Your task to perform on an android device: change alarm snooze length Image 0: 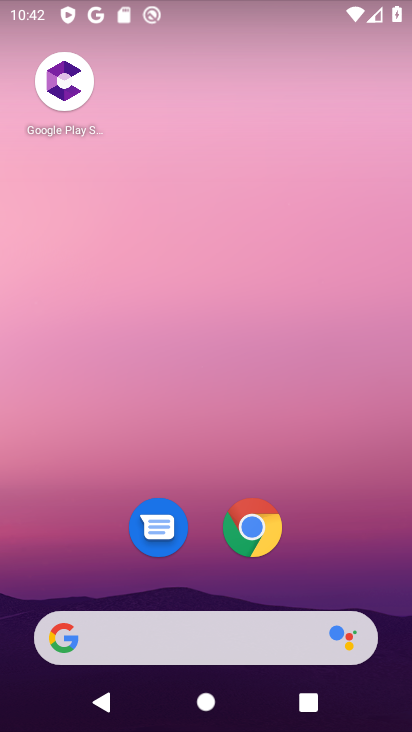
Step 0: drag from (200, 522) to (290, 25)
Your task to perform on an android device: change alarm snooze length Image 1: 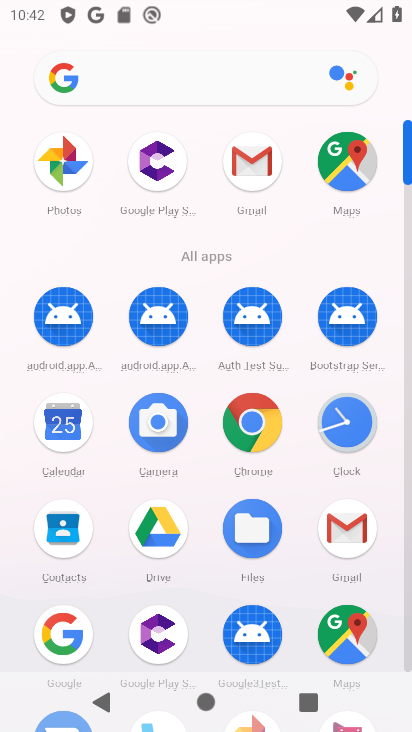
Step 1: click (367, 418)
Your task to perform on an android device: change alarm snooze length Image 2: 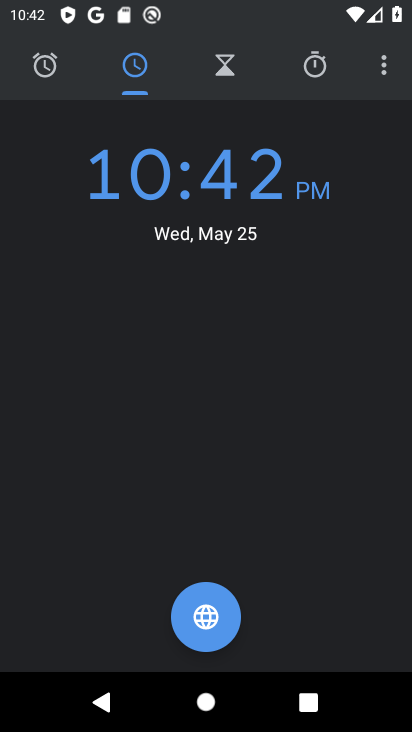
Step 2: click (382, 72)
Your task to perform on an android device: change alarm snooze length Image 3: 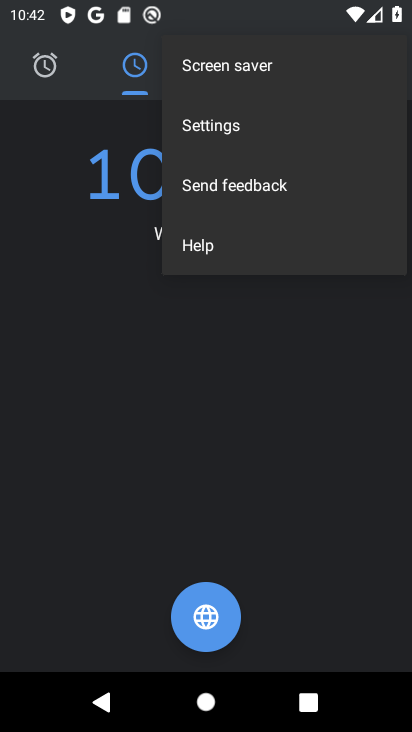
Step 3: click (222, 113)
Your task to perform on an android device: change alarm snooze length Image 4: 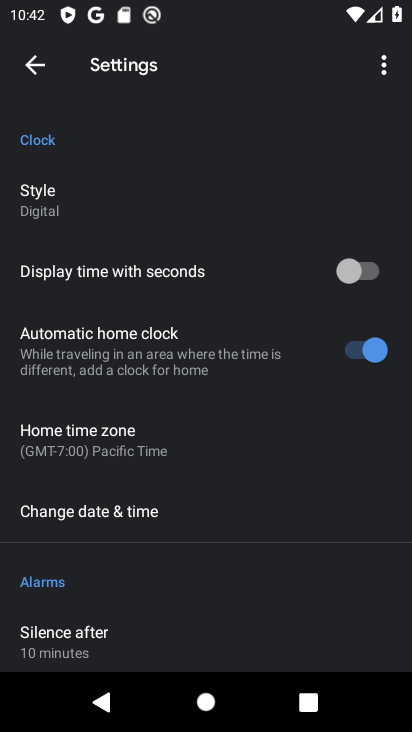
Step 4: drag from (190, 602) to (294, 140)
Your task to perform on an android device: change alarm snooze length Image 5: 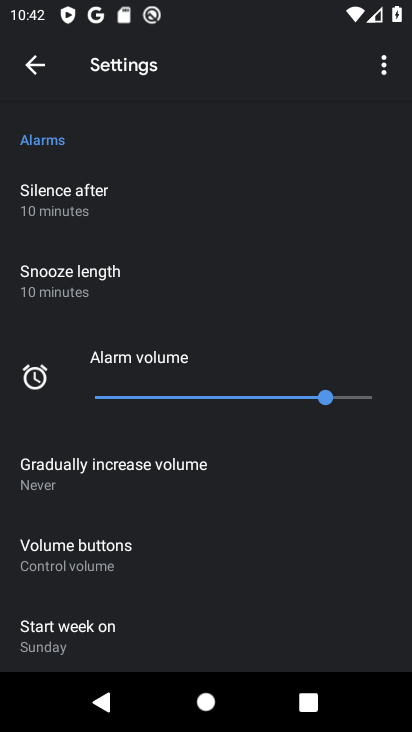
Step 5: click (110, 271)
Your task to perform on an android device: change alarm snooze length Image 6: 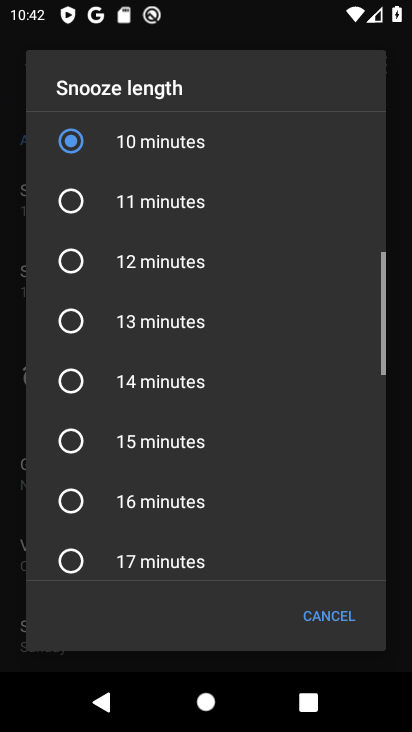
Step 6: click (171, 208)
Your task to perform on an android device: change alarm snooze length Image 7: 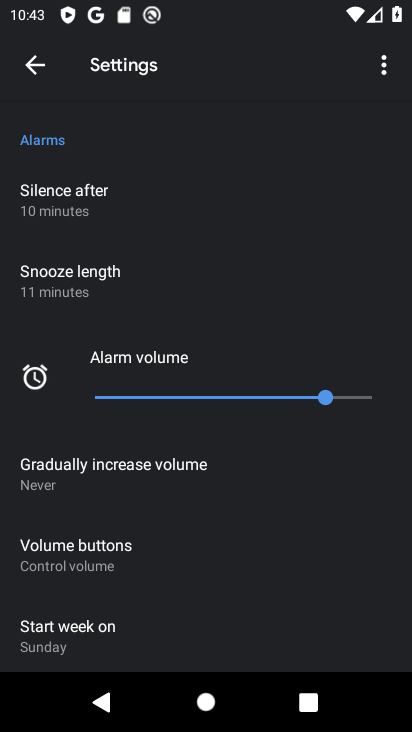
Step 7: task complete